Your task to perform on an android device: Open settings on Google Maps Image 0: 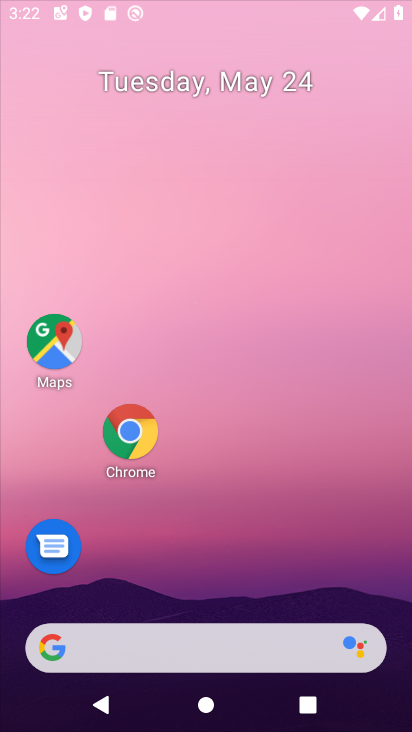
Step 0: click (339, 62)
Your task to perform on an android device: Open settings on Google Maps Image 1: 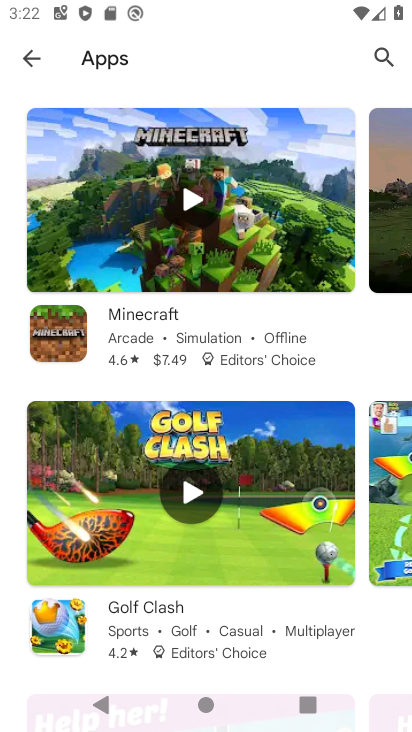
Step 1: drag from (245, 648) to (354, 223)
Your task to perform on an android device: Open settings on Google Maps Image 2: 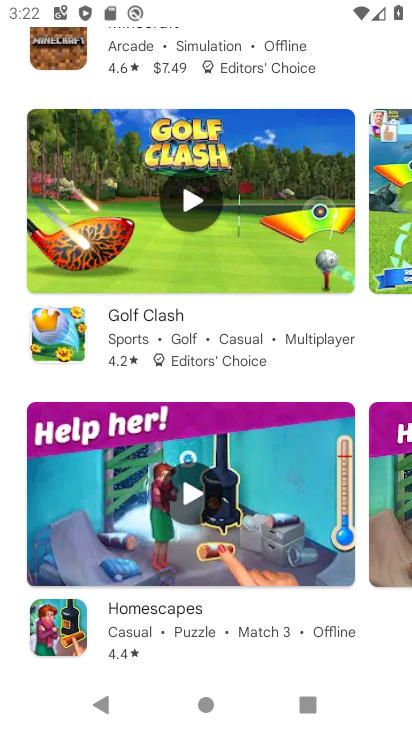
Step 2: drag from (240, 568) to (313, 141)
Your task to perform on an android device: Open settings on Google Maps Image 3: 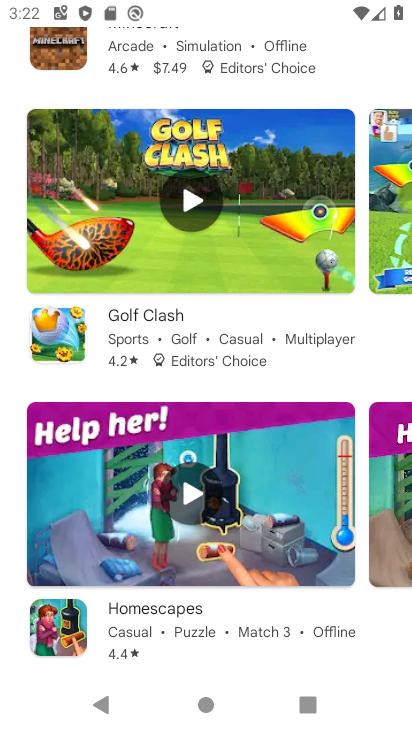
Step 3: drag from (363, 585) to (368, 238)
Your task to perform on an android device: Open settings on Google Maps Image 4: 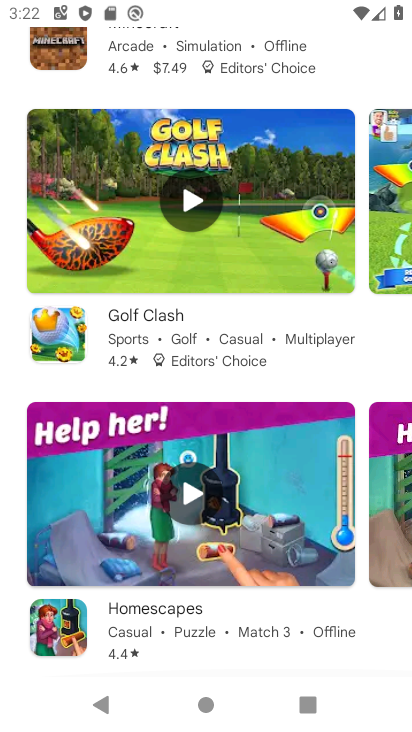
Step 4: drag from (349, 169) to (348, 645)
Your task to perform on an android device: Open settings on Google Maps Image 5: 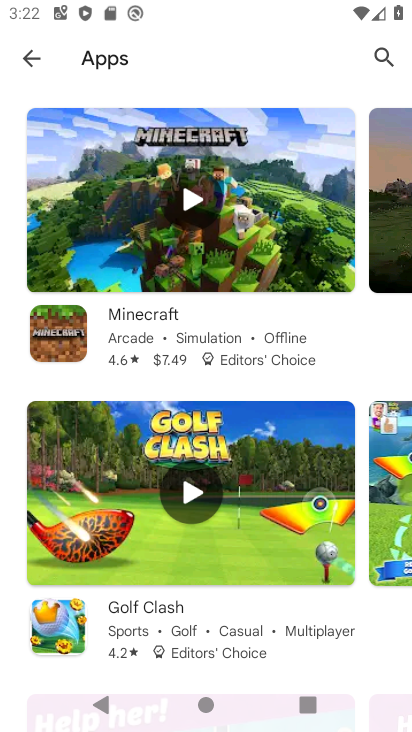
Step 5: press home button
Your task to perform on an android device: Open settings on Google Maps Image 6: 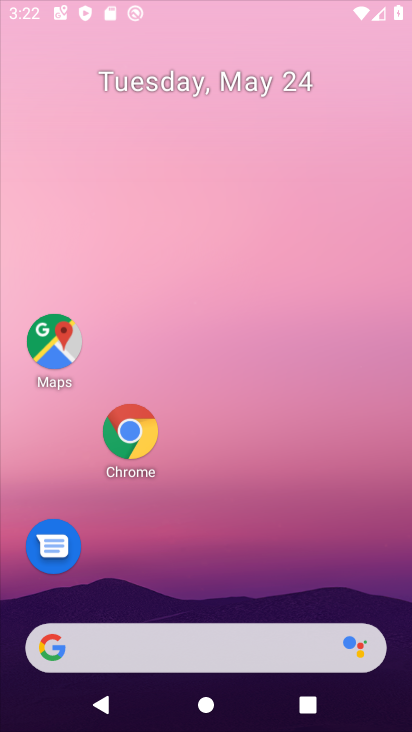
Step 6: drag from (185, 598) to (363, 16)
Your task to perform on an android device: Open settings on Google Maps Image 7: 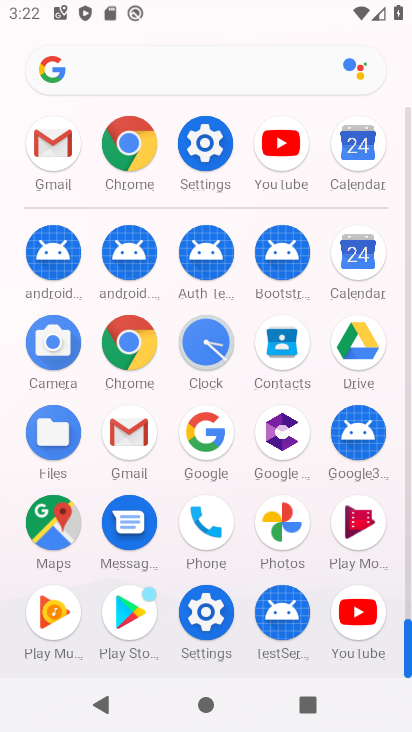
Step 7: click (53, 512)
Your task to perform on an android device: Open settings on Google Maps Image 8: 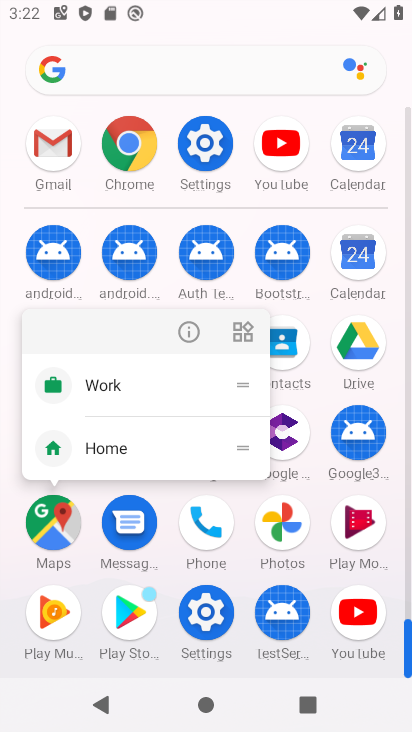
Step 8: click (191, 330)
Your task to perform on an android device: Open settings on Google Maps Image 9: 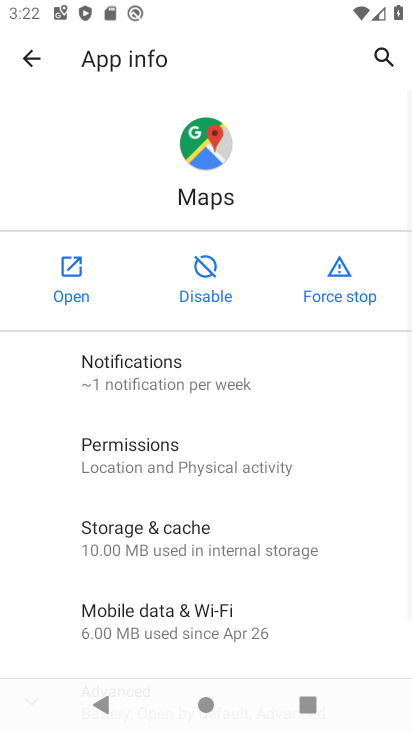
Step 9: click (81, 265)
Your task to perform on an android device: Open settings on Google Maps Image 10: 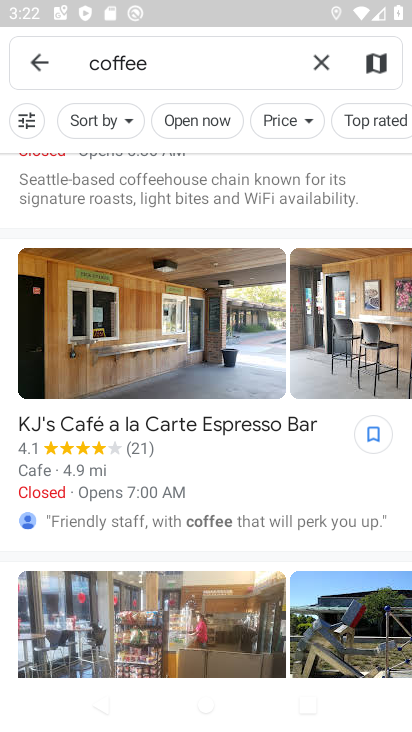
Step 10: click (34, 70)
Your task to perform on an android device: Open settings on Google Maps Image 11: 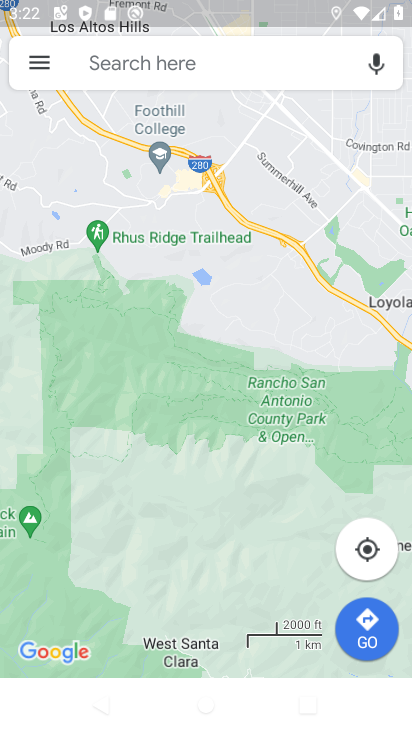
Step 11: click (38, 72)
Your task to perform on an android device: Open settings on Google Maps Image 12: 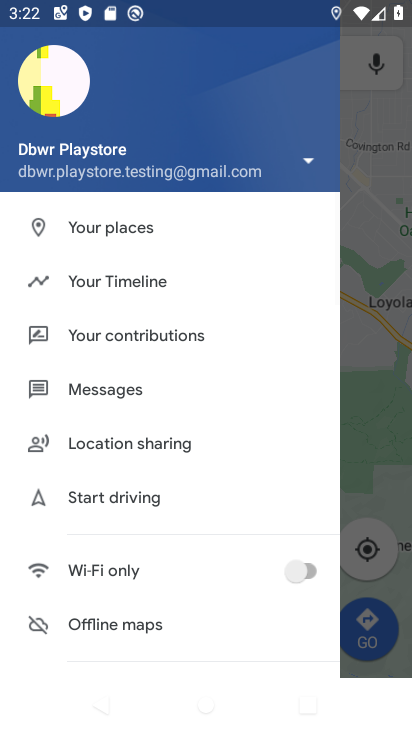
Step 12: drag from (133, 559) to (235, 123)
Your task to perform on an android device: Open settings on Google Maps Image 13: 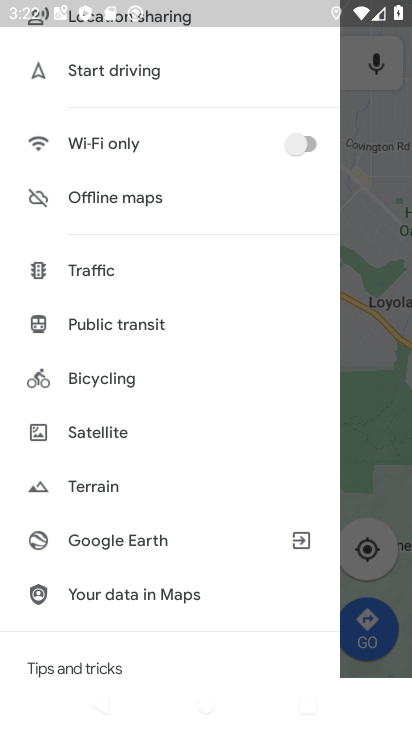
Step 13: drag from (174, 533) to (229, 315)
Your task to perform on an android device: Open settings on Google Maps Image 14: 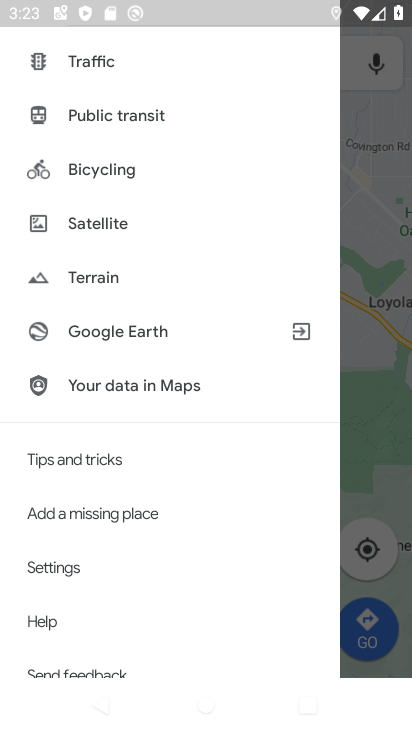
Step 14: click (134, 566)
Your task to perform on an android device: Open settings on Google Maps Image 15: 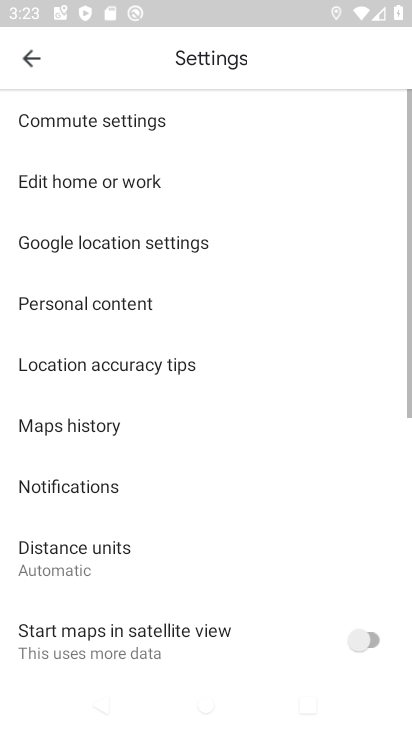
Step 15: task complete